Your task to perform on an android device: turn off sleep mode Image 0: 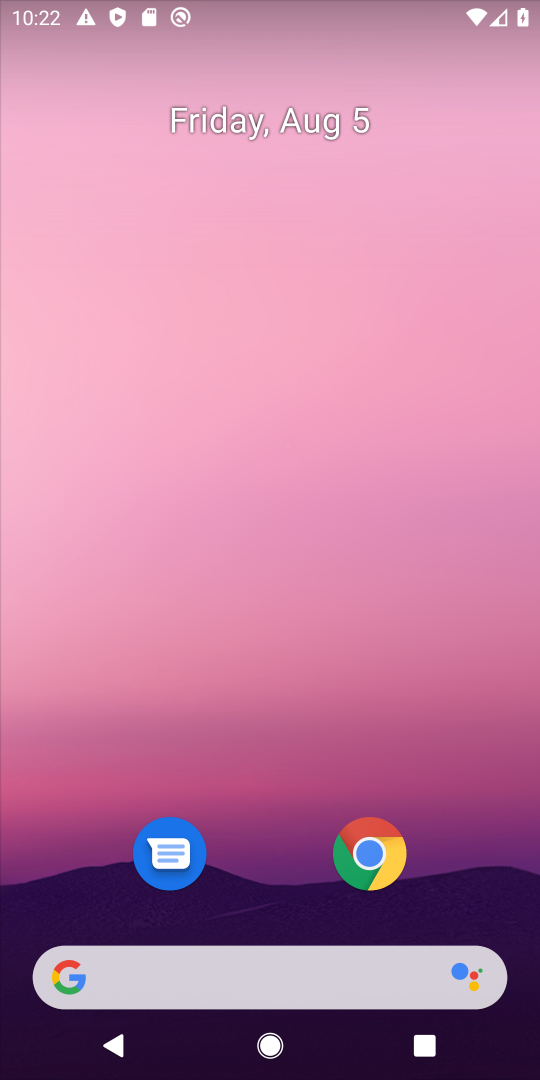
Step 0: drag from (250, 853) to (271, 13)
Your task to perform on an android device: turn off sleep mode Image 1: 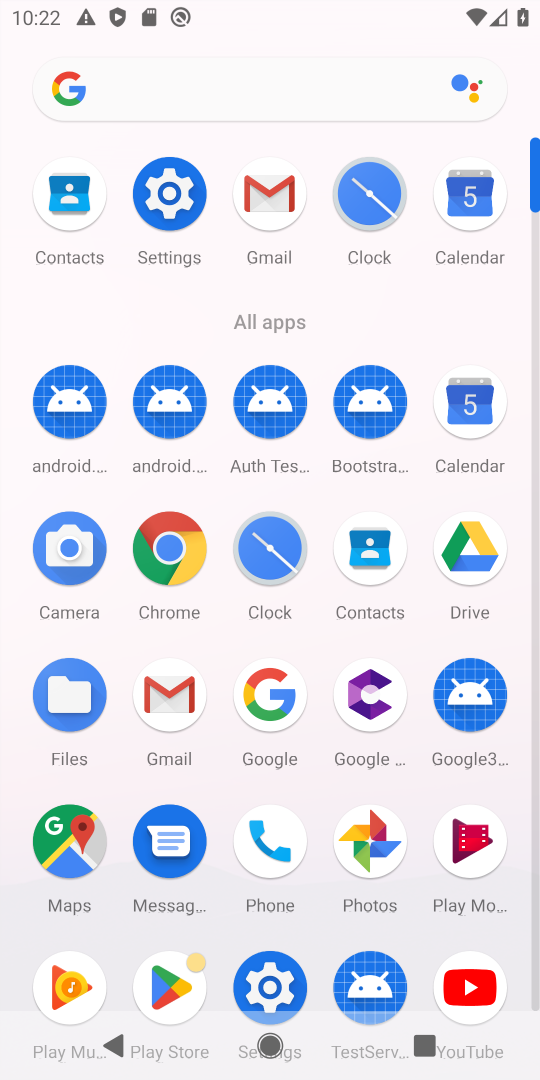
Step 1: click (172, 216)
Your task to perform on an android device: turn off sleep mode Image 2: 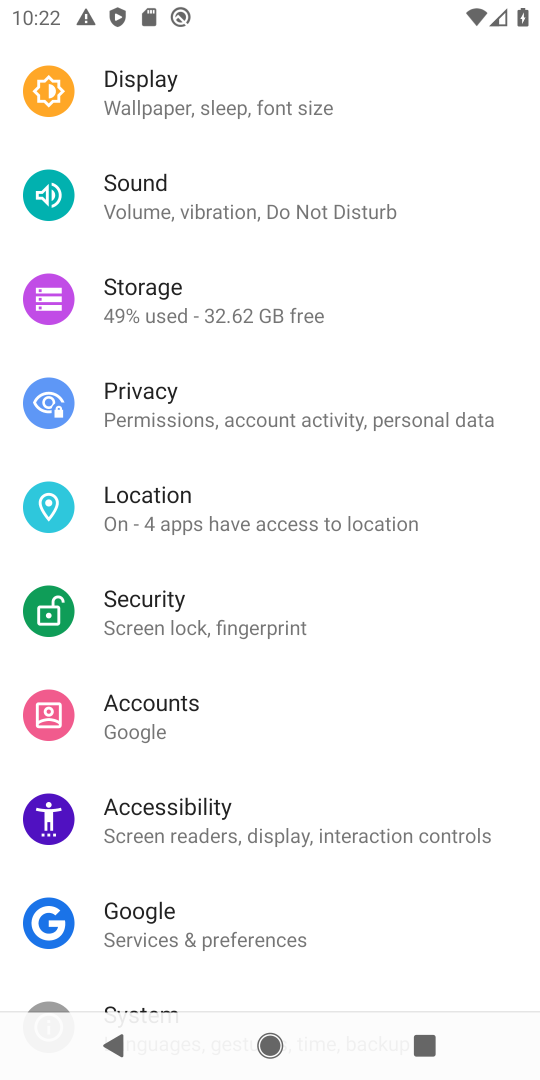
Step 2: click (281, 108)
Your task to perform on an android device: turn off sleep mode Image 3: 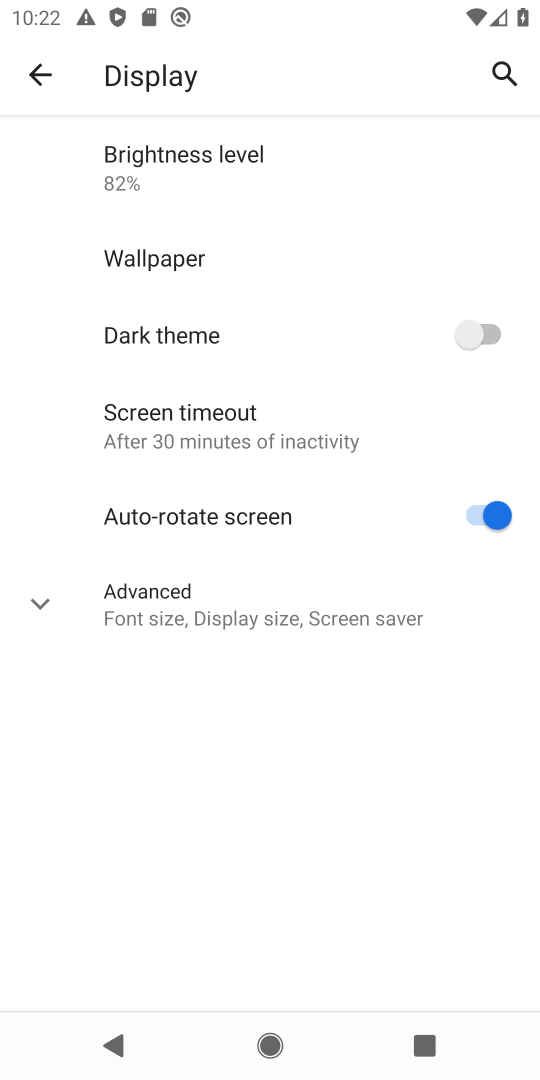
Step 3: click (196, 597)
Your task to perform on an android device: turn off sleep mode Image 4: 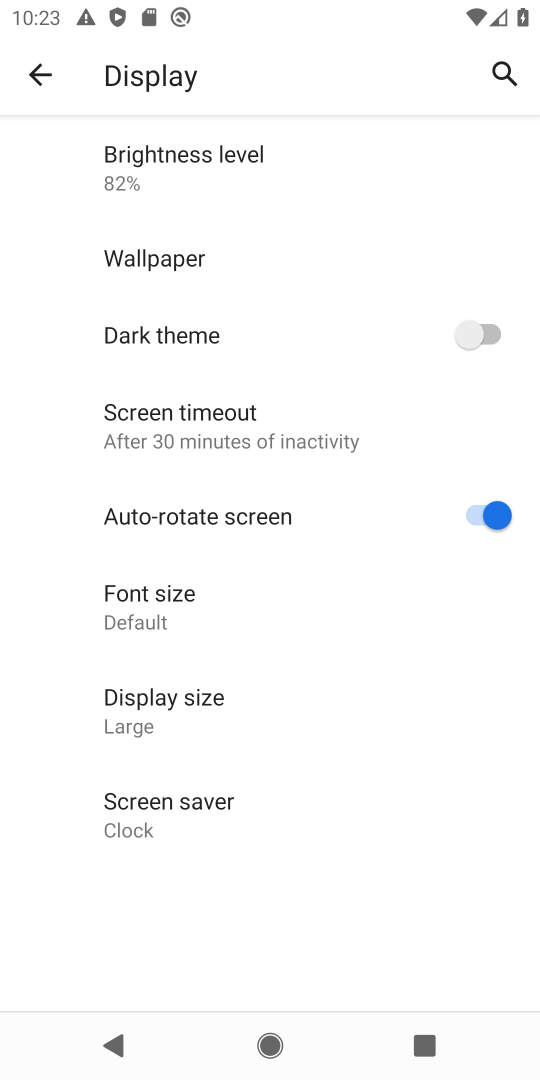
Step 4: task complete